Your task to perform on an android device: turn off notifications in google photos Image 0: 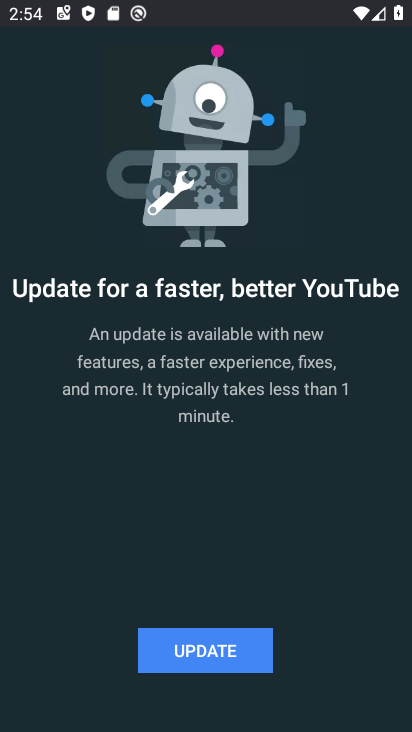
Step 0: press home button
Your task to perform on an android device: turn off notifications in google photos Image 1: 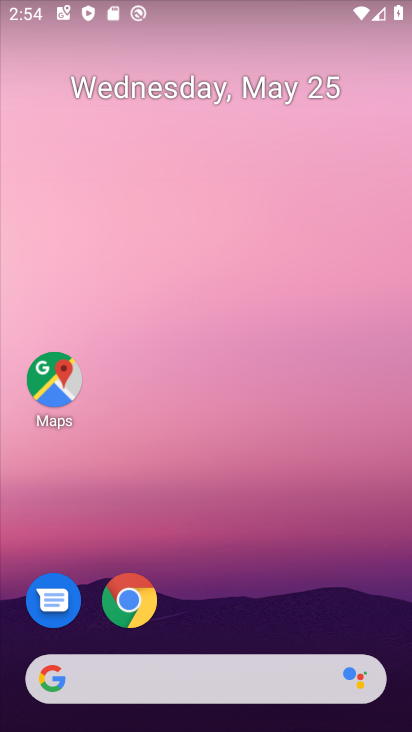
Step 1: drag from (47, 503) to (260, 88)
Your task to perform on an android device: turn off notifications in google photos Image 2: 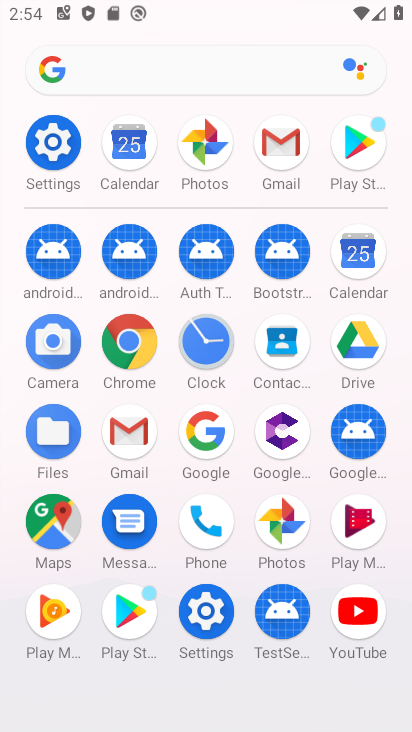
Step 2: click (57, 143)
Your task to perform on an android device: turn off notifications in google photos Image 3: 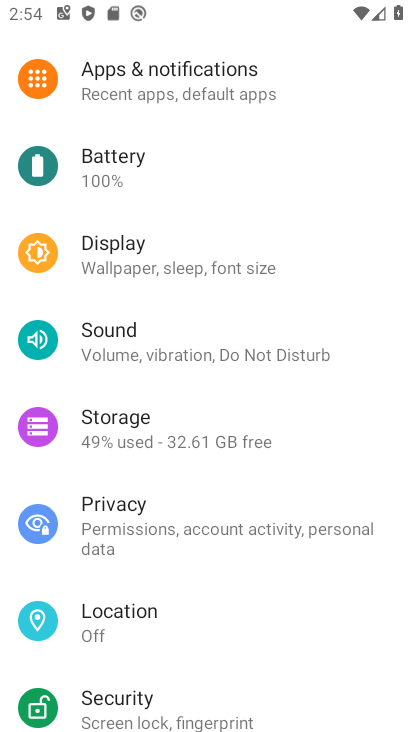
Step 3: click (256, 103)
Your task to perform on an android device: turn off notifications in google photos Image 4: 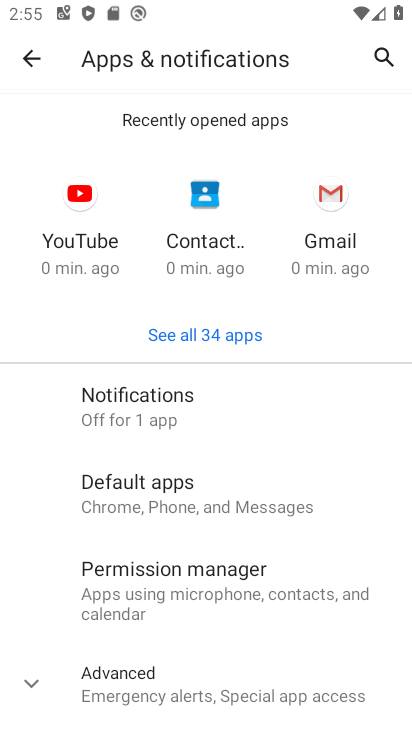
Step 4: click (223, 336)
Your task to perform on an android device: turn off notifications in google photos Image 5: 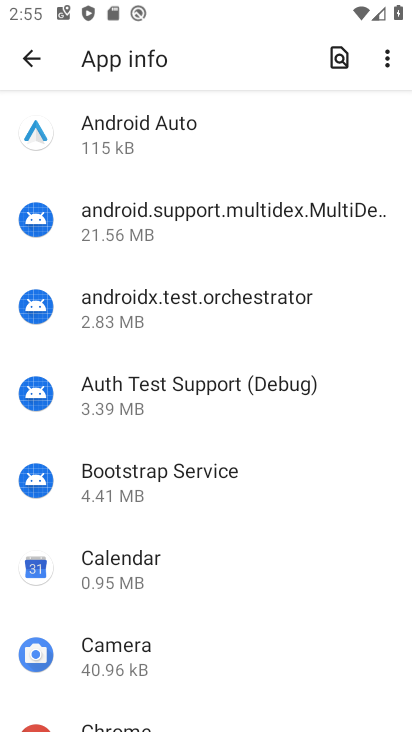
Step 5: press home button
Your task to perform on an android device: turn off notifications in google photos Image 6: 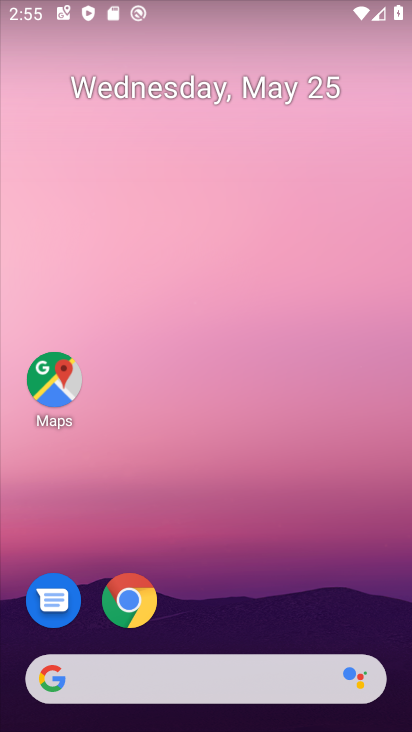
Step 6: drag from (4, 628) to (142, 159)
Your task to perform on an android device: turn off notifications in google photos Image 7: 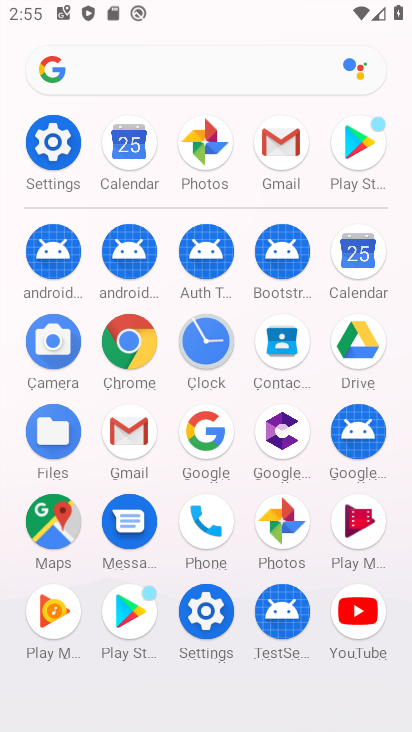
Step 7: click (205, 620)
Your task to perform on an android device: turn off notifications in google photos Image 8: 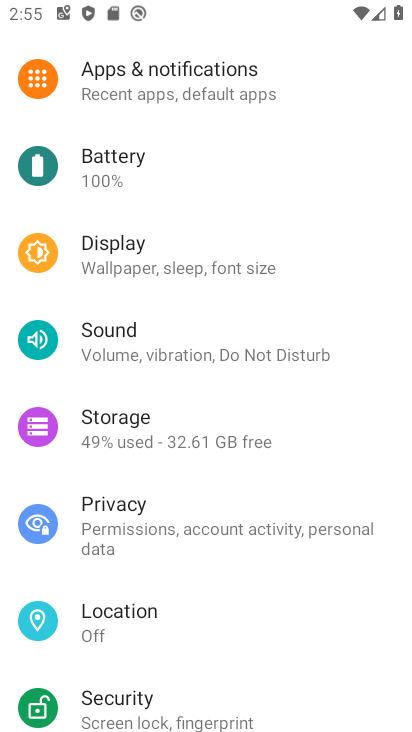
Step 8: click (179, 89)
Your task to perform on an android device: turn off notifications in google photos Image 9: 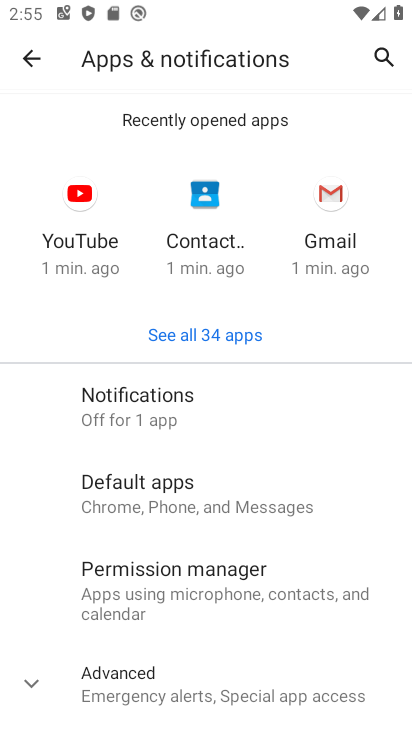
Step 9: click (160, 420)
Your task to perform on an android device: turn off notifications in google photos Image 10: 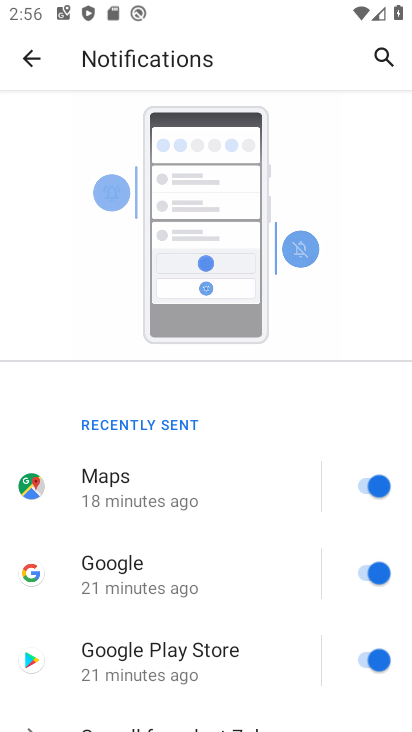
Step 10: task complete